Your task to perform on an android device: Open battery settings Image 0: 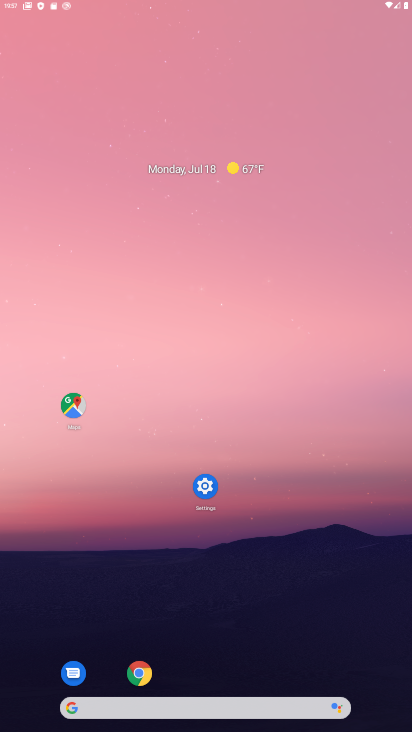
Step 0: click (239, 315)
Your task to perform on an android device: Open battery settings Image 1: 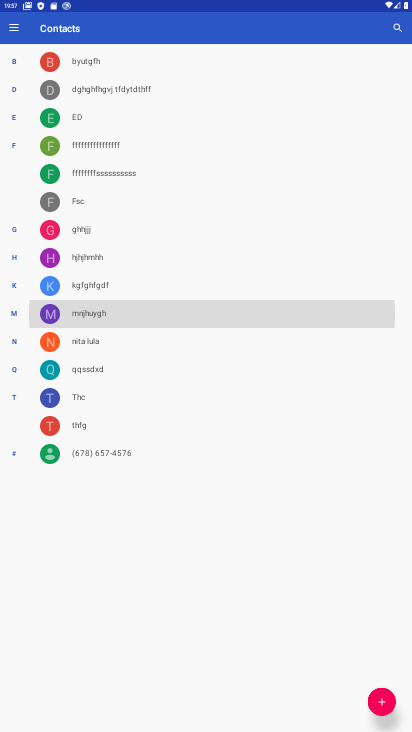
Step 1: drag from (240, 702) to (197, 329)
Your task to perform on an android device: Open battery settings Image 2: 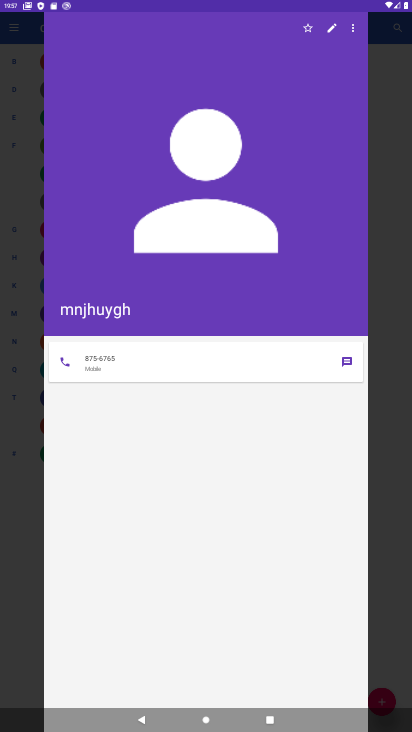
Step 2: press back button
Your task to perform on an android device: Open battery settings Image 3: 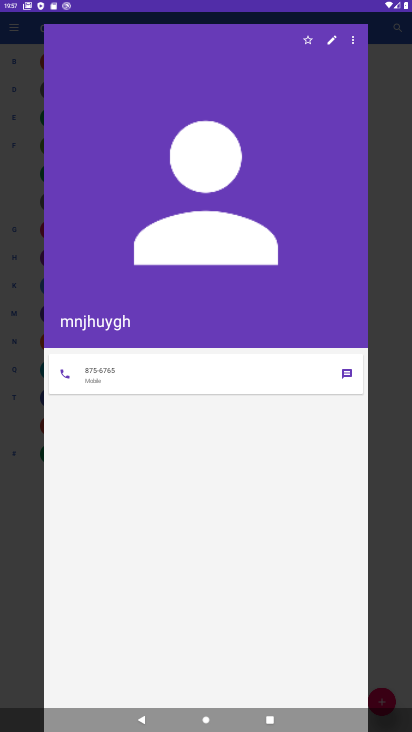
Step 3: press back button
Your task to perform on an android device: Open battery settings Image 4: 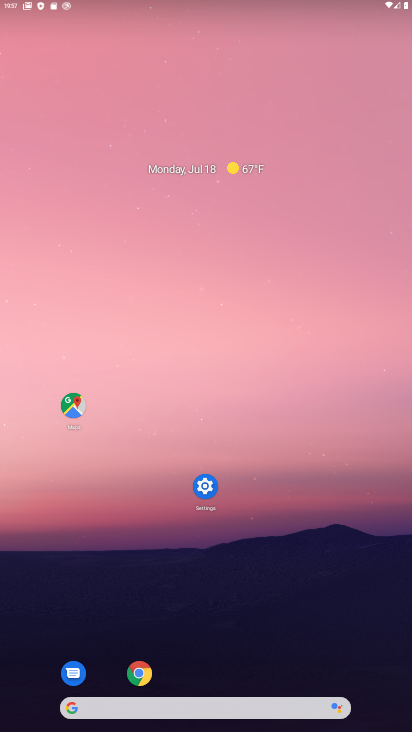
Step 4: press home button
Your task to perform on an android device: Open battery settings Image 5: 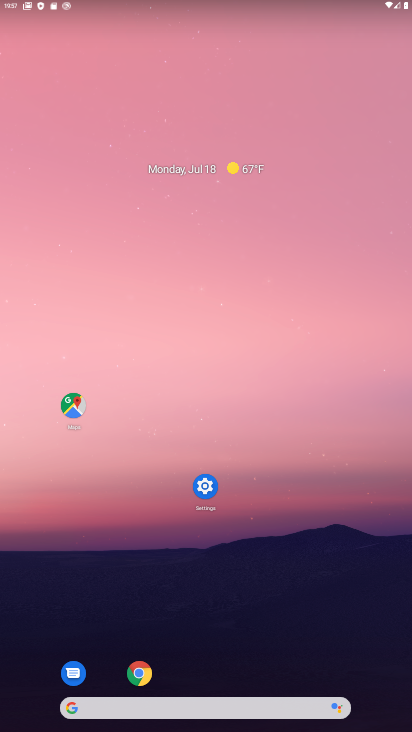
Step 5: drag from (232, 707) to (267, 235)
Your task to perform on an android device: Open battery settings Image 6: 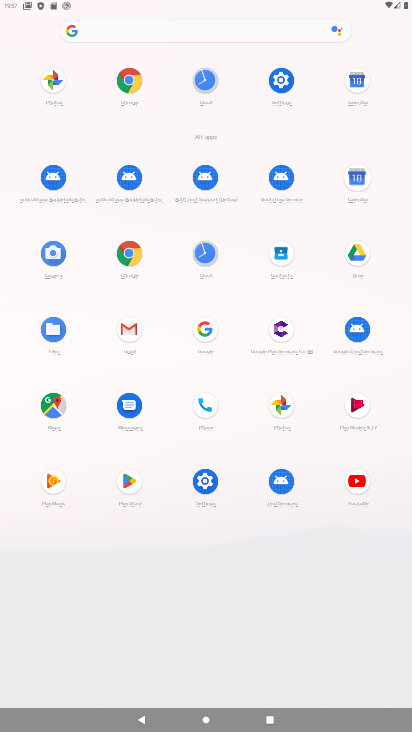
Step 6: click (201, 480)
Your task to perform on an android device: Open battery settings Image 7: 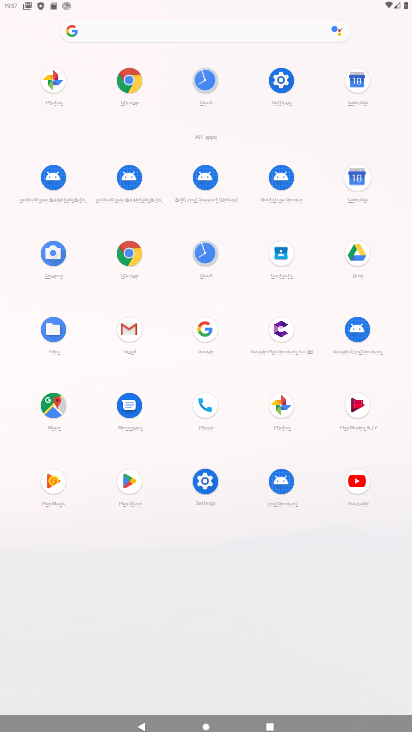
Step 7: click (202, 480)
Your task to perform on an android device: Open battery settings Image 8: 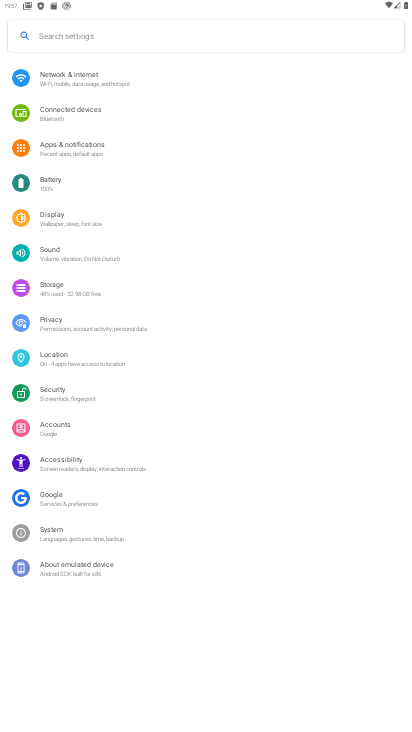
Step 8: click (202, 481)
Your task to perform on an android device: Open battery settings Image 9: 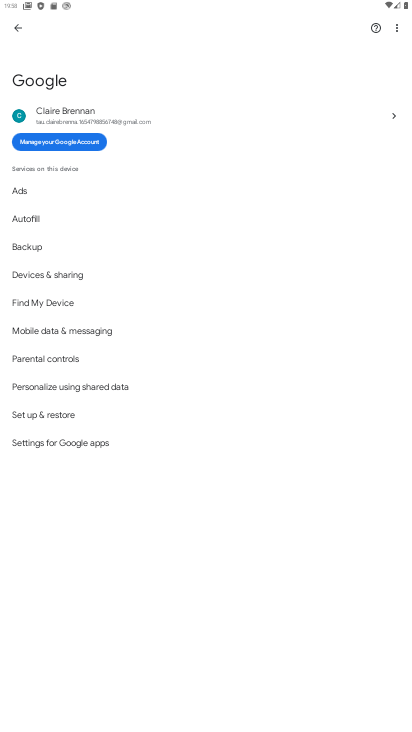
Step 9: press back button
Your task to perform on an android device: Open battery settings Image 10: 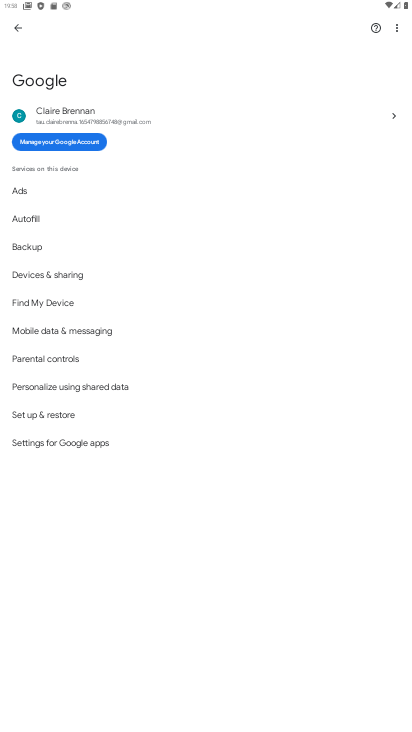
Step 10: press back button
Your task to perform on an android device: Open battery settings Image 11: 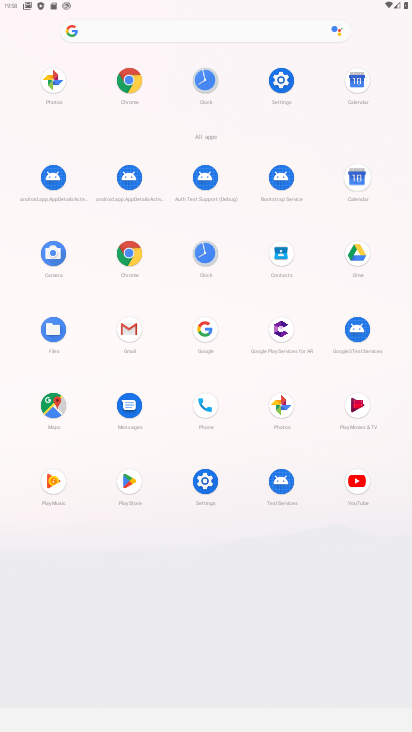
Step 11: click (213, 483)
Your task to perform on an android device: Open battery settings Image 12: 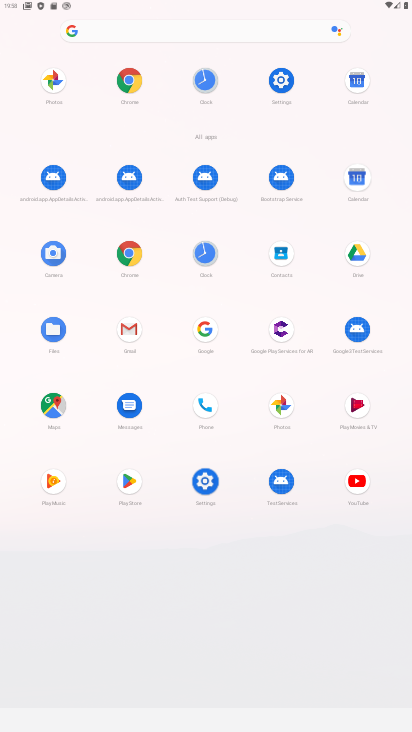
Step 12: click (211, 485)
Your task to perform on an android device: Open battery settings Image 13: 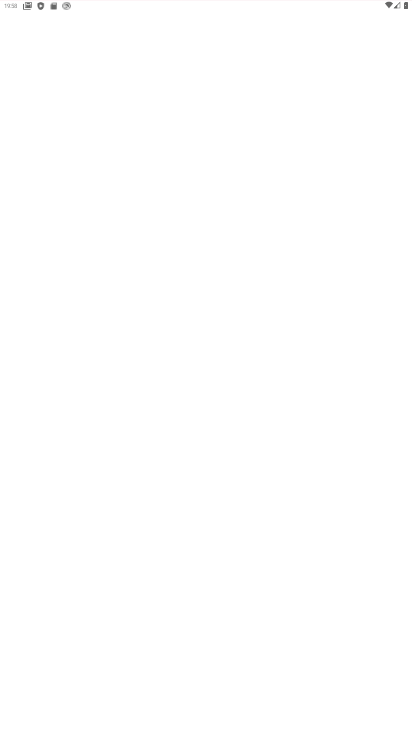
Step 13: click (211, 486)
Your task to perform on an android device: Open battery settings Image 14: 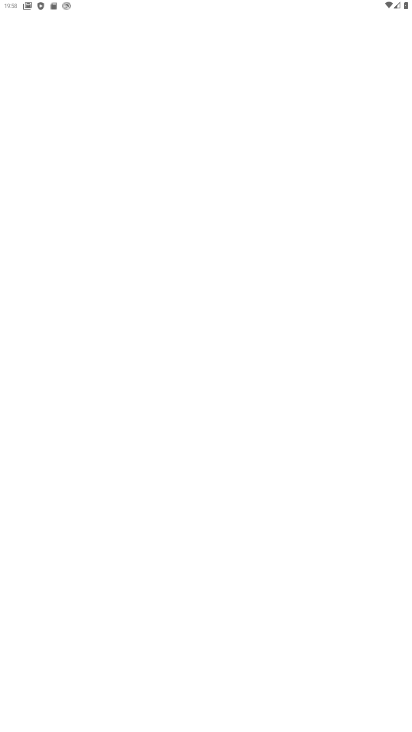
Step 14: click (211, 488)
Your task to perform on an android device: Open battery settings Image 15: 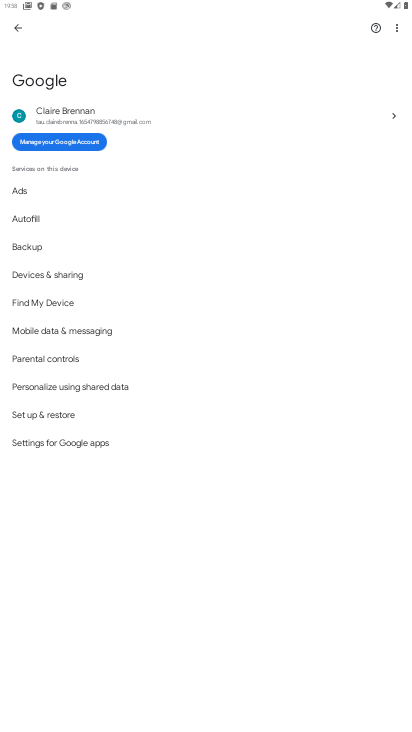
Step 15: press back button
Your task to perform on an android device: Open battery settings Image 16: 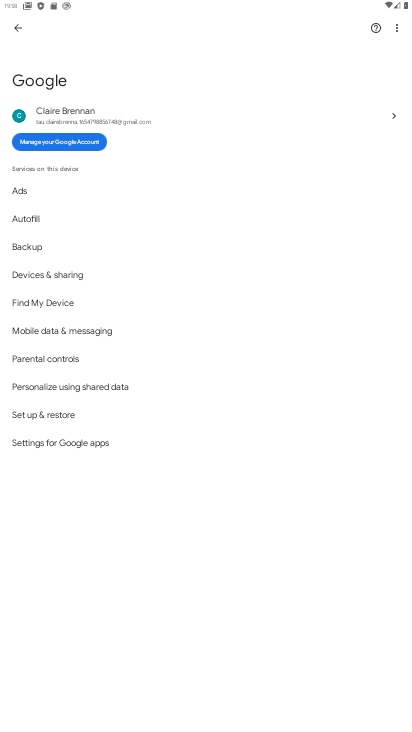
Step 16: press back button
Your task to perform on an android device: Open battery settings Image 17: 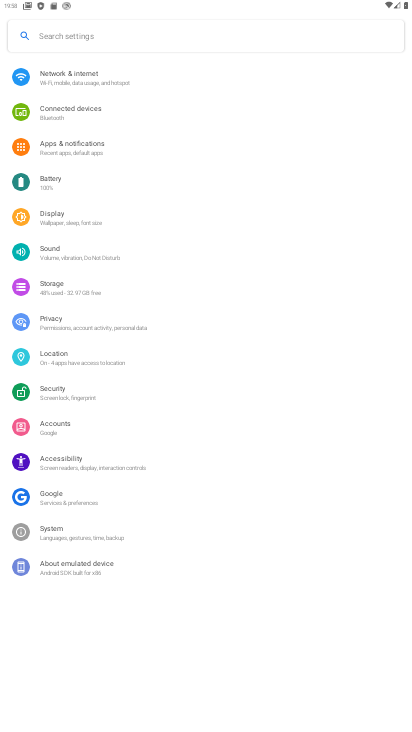
Step 17: press back button
Your task to perform on an android device: Open battery settings Image 18: 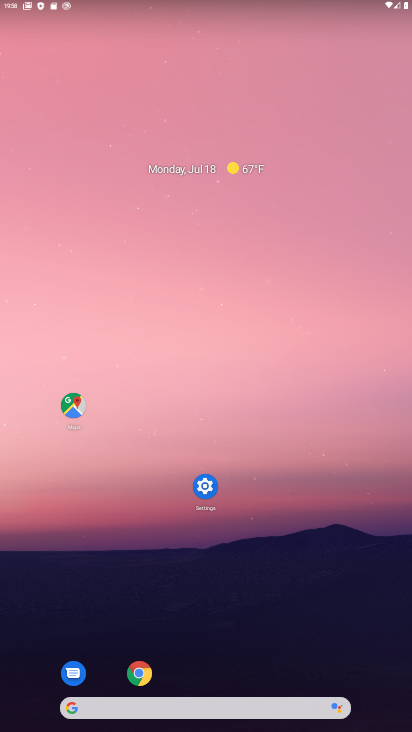
Step 18: drag from (227, 653) to (152, 136)
Your task to perform on an android device: Open battery settings Image 19: 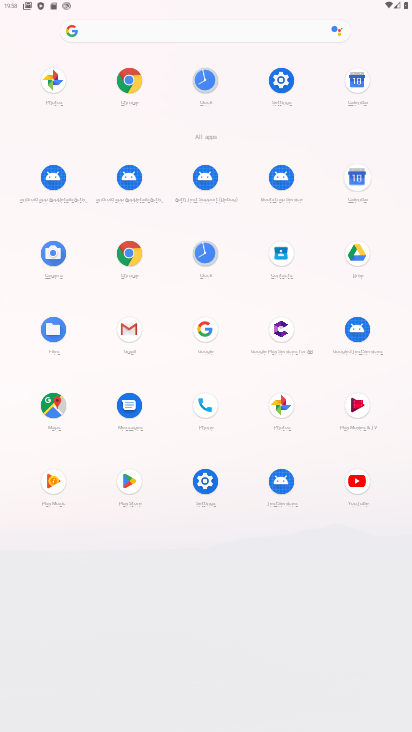
Step 19: click (211, 483)
Your task to perform on an android device: Open battery settings Image 20: 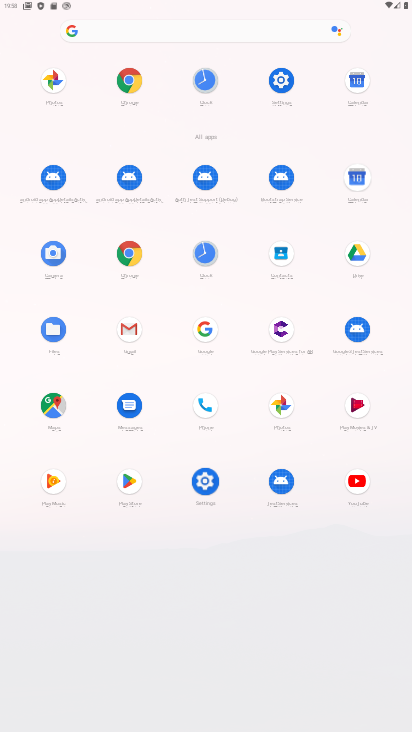
Step 20: click (205, 483)
Your task to perform on an android device: Open battery settings Image 21: 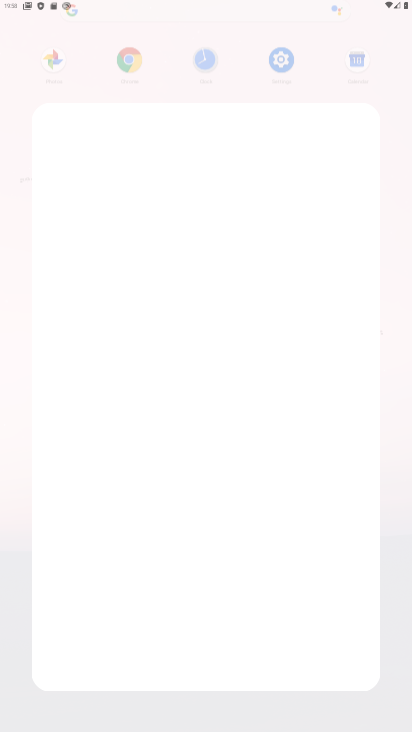
Step 21: click (205, 483)
Your task to perform on an android device: Open battery settings Image 22: 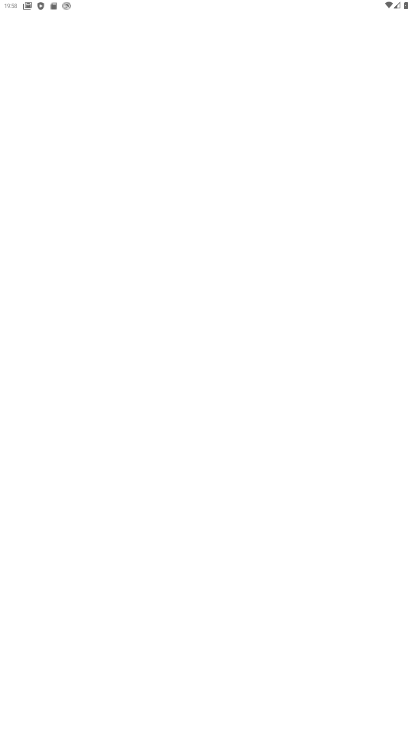
Step 22: click (205, 483)
Your task to perform on an android device: Open battery settings Image 23: 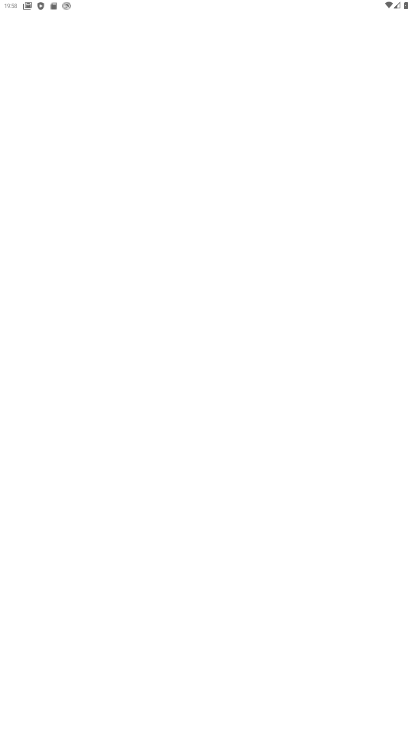
Step 23: click (205, 483)
Your task to perform on an android device: Open battery settings Image 24: 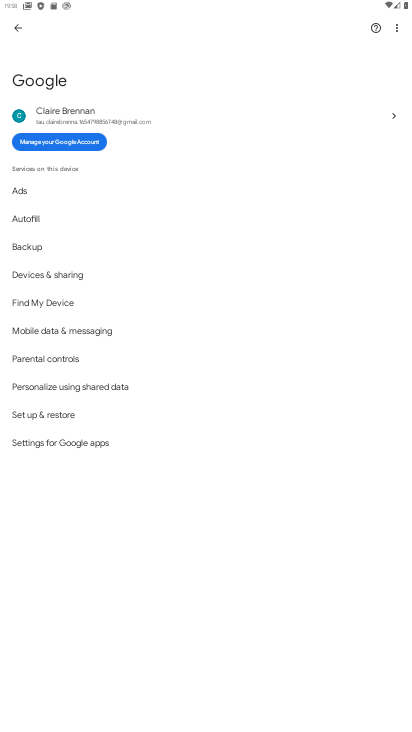
Step 24: click (15, 31)
Your task to perform on an android device: Open battery settings Image 25: 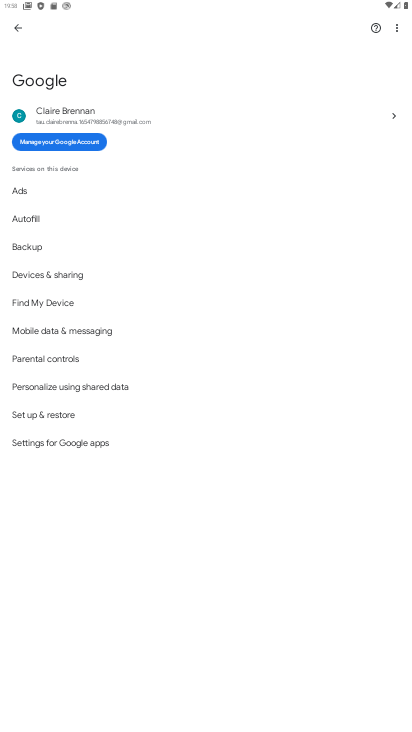
Step 25: click (16, 24)
Your task to perform on an android device: Open battery settings Image 26: 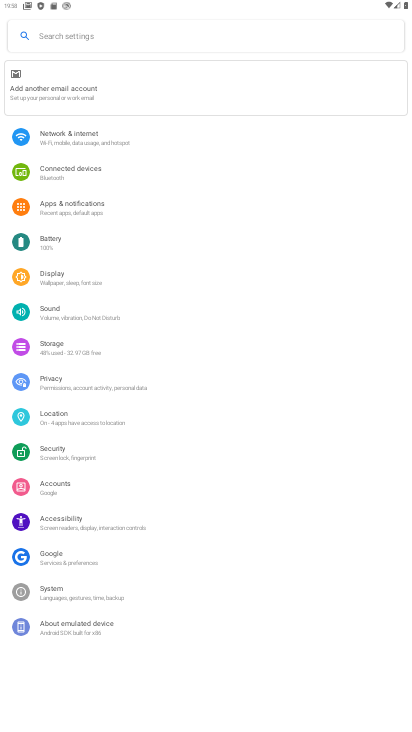
Step 26: click (58, 236)
Your task to perform on an android device: Open battery settings Image 27: 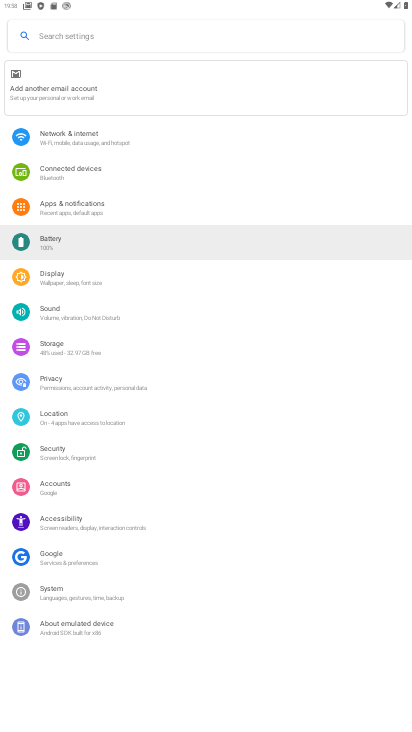
Step 27: click (55, 236)
Your task to perform on an android device: Open battery settings Image 28: 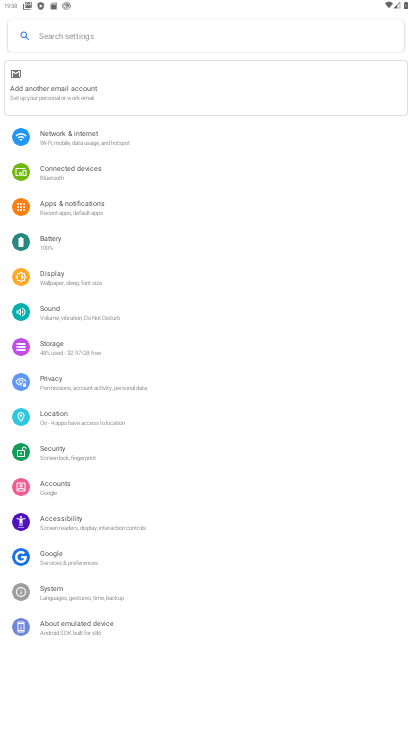
Step 28: click (54, 237)
Your task to perform on an android device: Open battery settings Image 29: 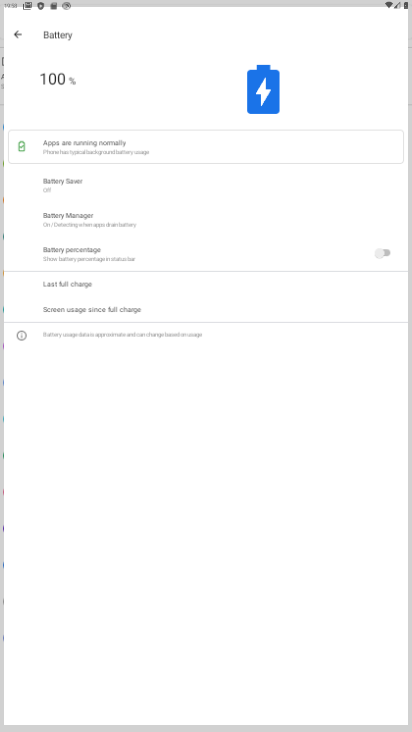
Step 29: click (55, 242)
Your task to perform on an android device: Open battery settings Image 30: 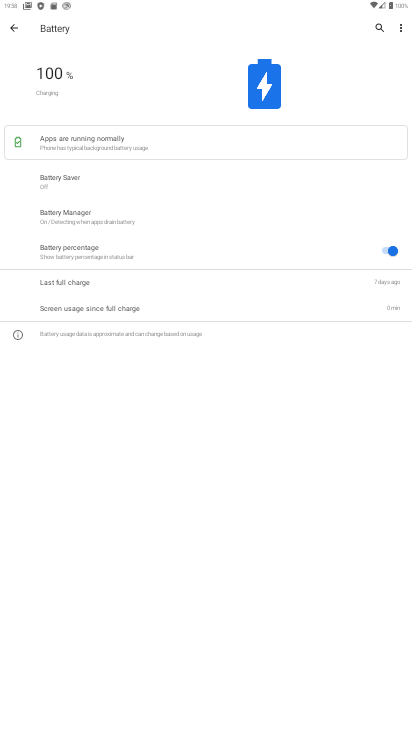
Step 30: task complete